Your task to perform on an android device: install app "Chime – Mobile Banking" Image 0: 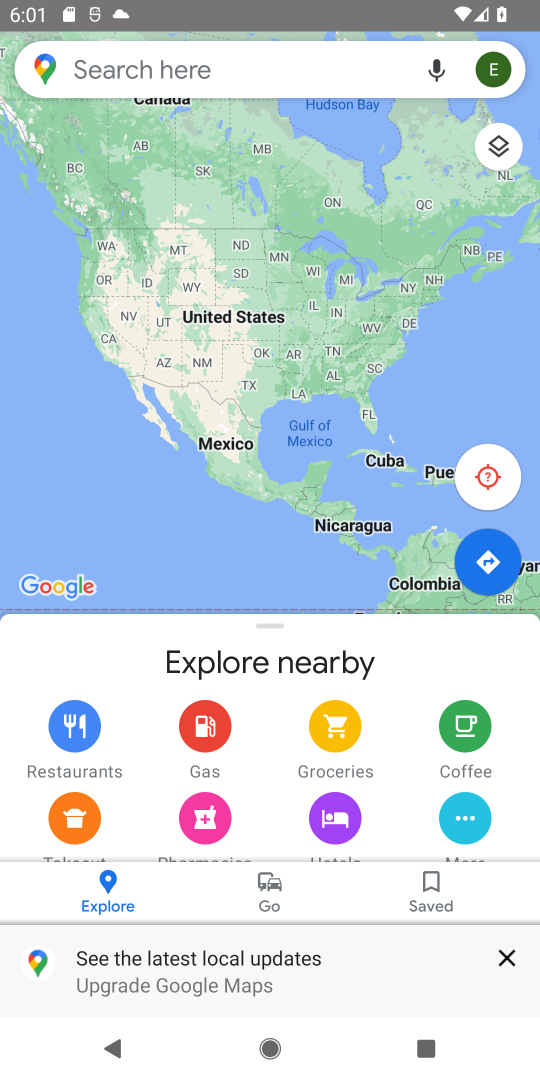
Step 0: press home button
Your task to perform on an android device: install app "Chime – Mobile Banking" Image 1: 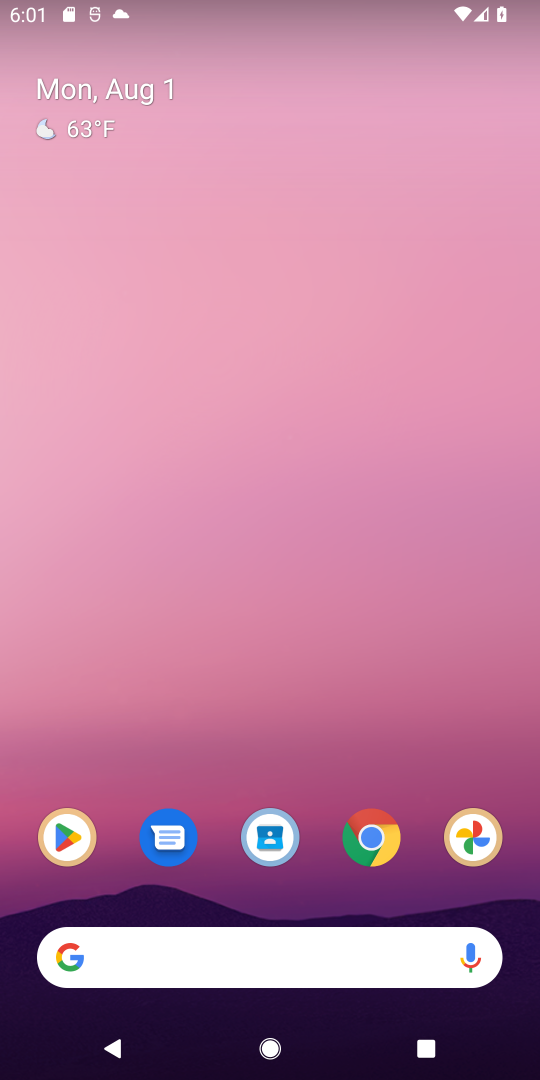
Step 1: click (53, 838)
Your task to perform on an android device: install app "Chime – Mobile Banking" Image 2: 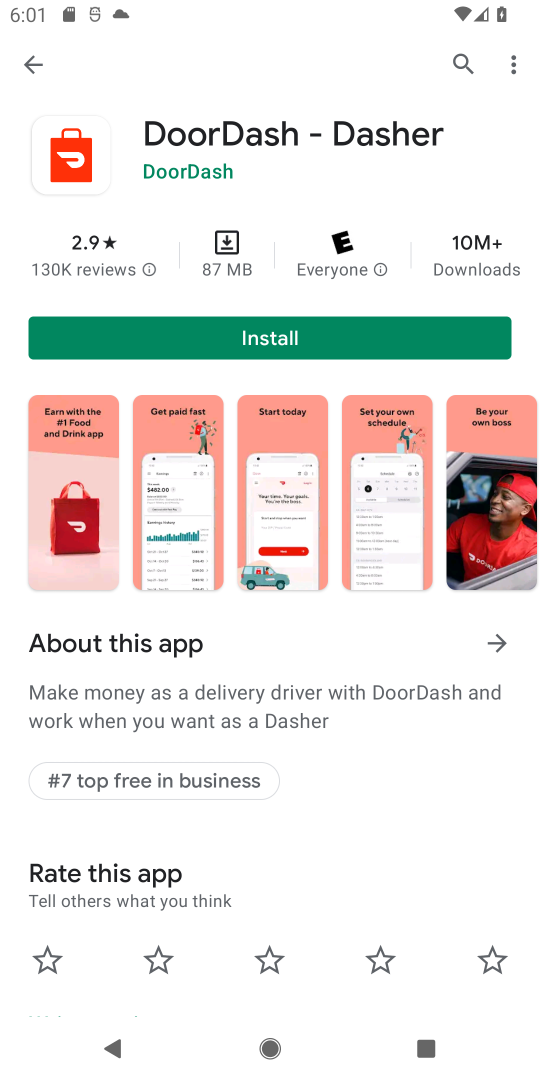
Step 2: click (465, 59)
Your task to perform on an android device: install app "Chime – Mobile Banking" Image 3: 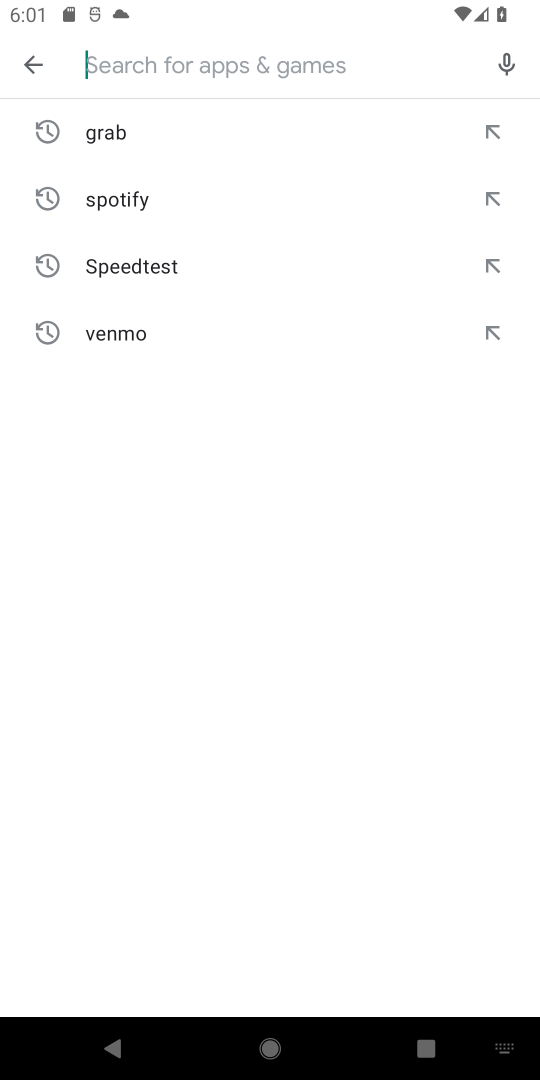
Step 3: type "Chime – Mobile Banking"
Your task to perform on an android device: install app "Chime – Mobile Banking" Image 4: 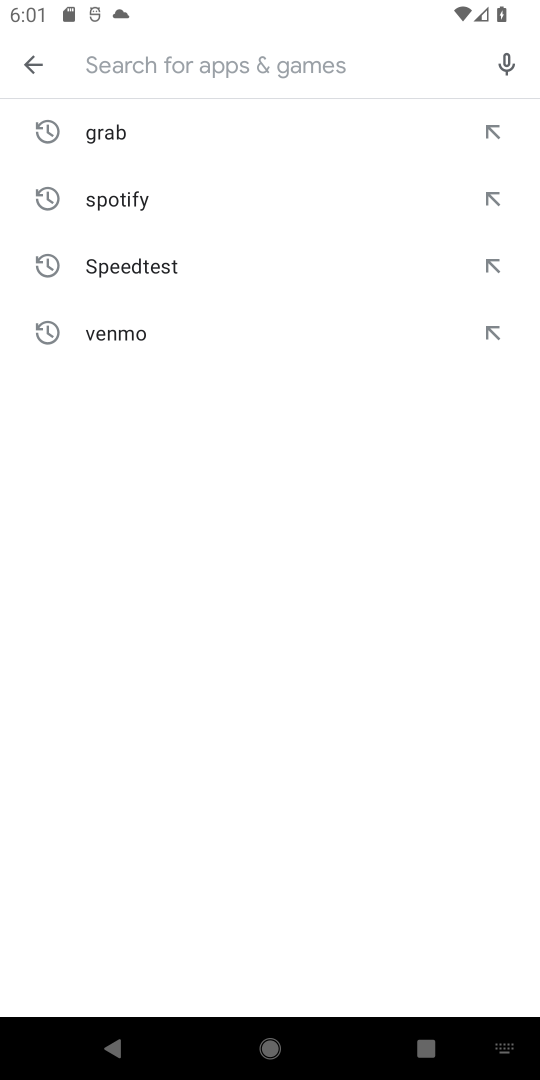
Step 4: type "Chime – Mobile Banking"
Your task to perform on an android device: install app "Chime – Mobile Banking" Image 5: 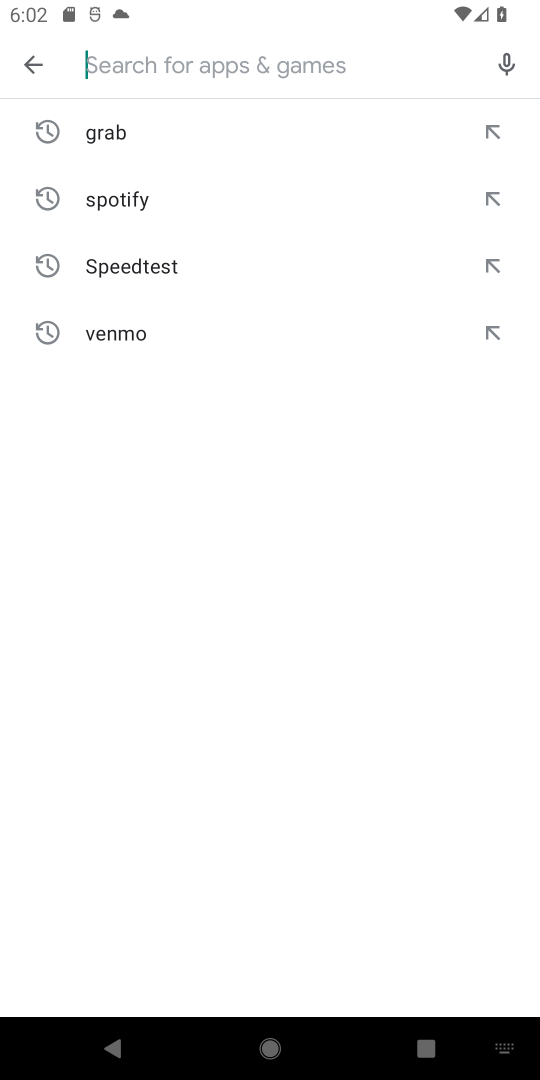
Step 5: type "Chime – Mobile Banking"
Your task to perform on an android device: install app "Chime – Mobile Banking" Image 6: 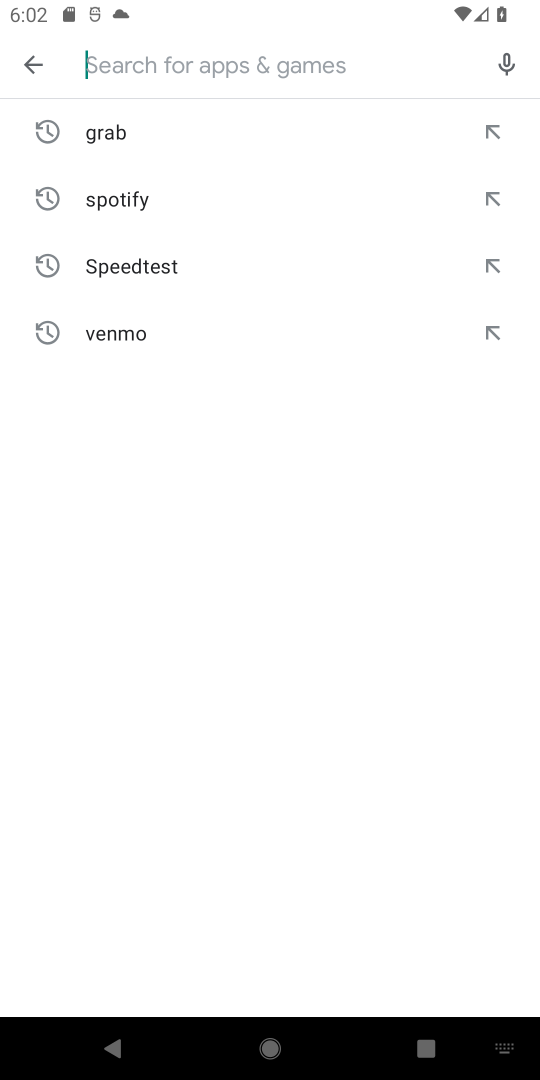
Step 6: click (238, 67)
Your task to perform on an android device: install app "Chime – Mobile Banking" Image 7: 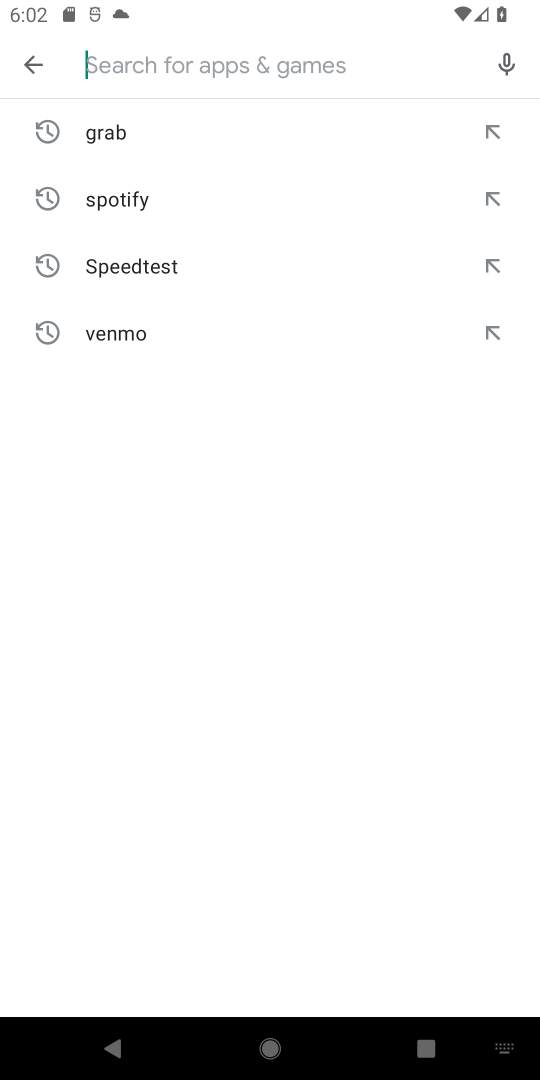
Step 7: type "chime "
Your task to perform on an android device: install app "Chime – Mobile Banking" Image 8: 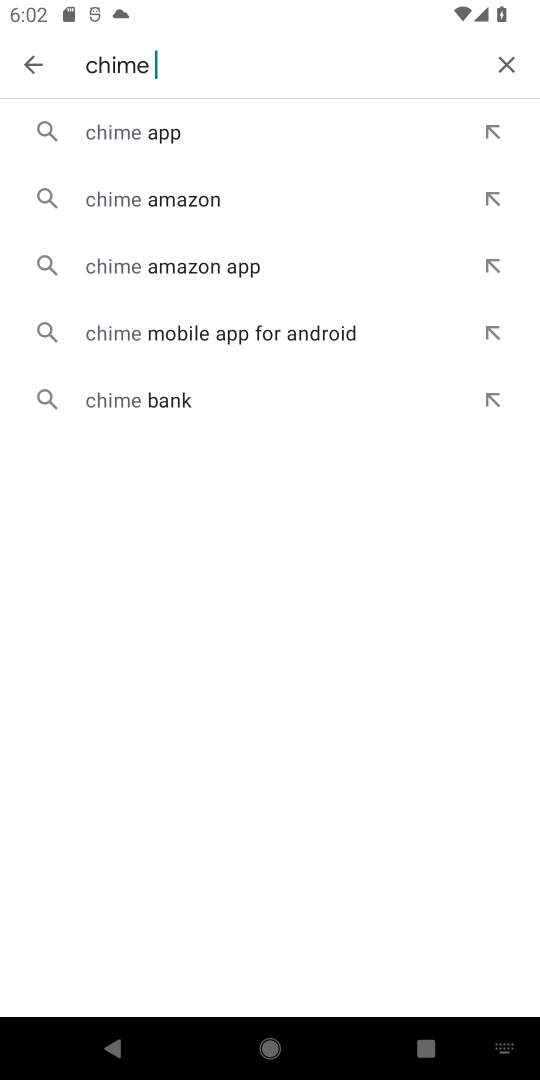
Step 8: click (132, 128)
Your task to perform on an android device: install app "Chime – Mobile Banking" Image 9: 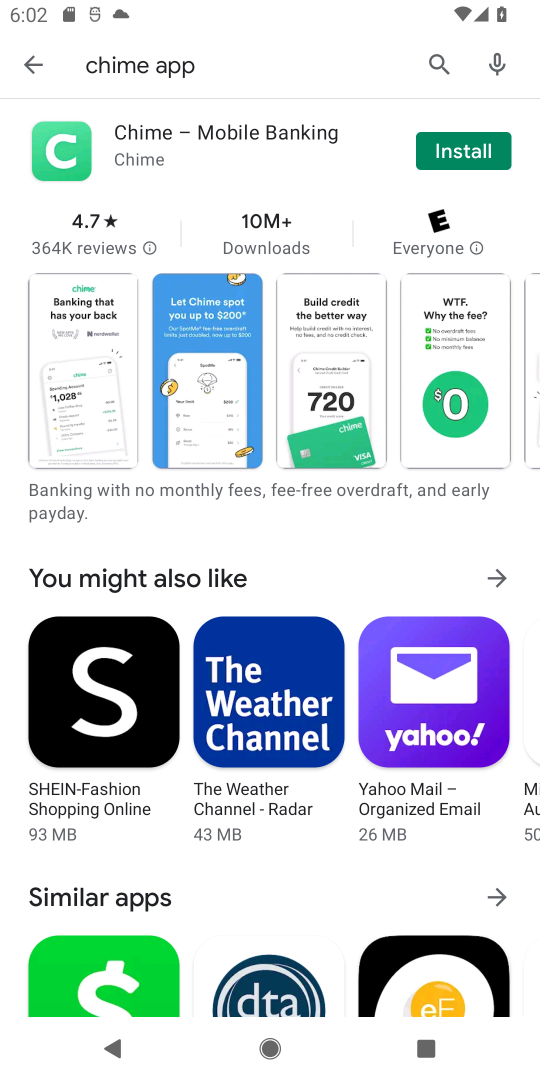
Step 9: click (474, 159)
Your task to perform on an android device: install app "Chime – Mobile Banking" Image 10: 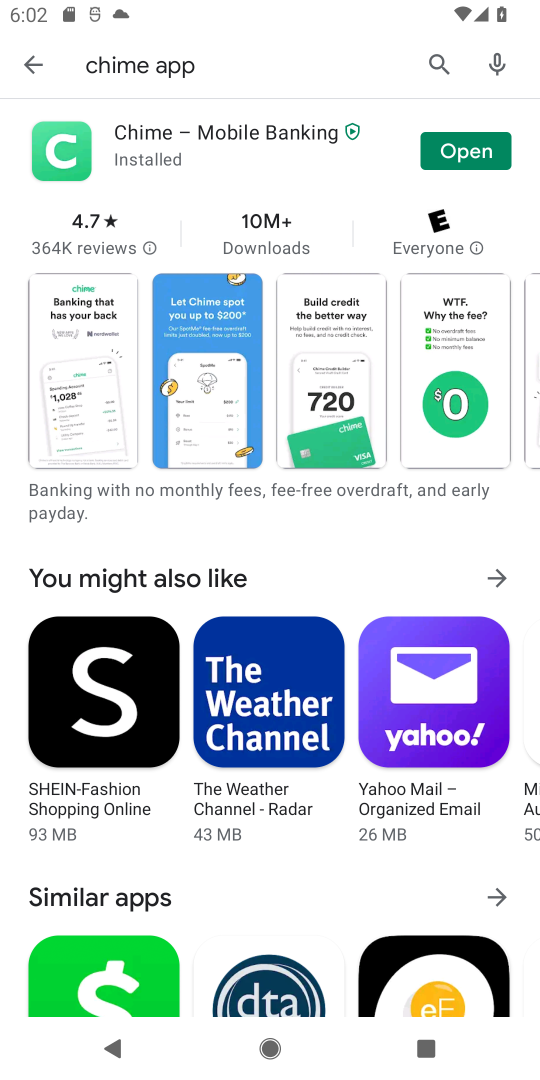
Step 10: task complete